Your task to perform on an android device: Search for Mexican restaurants on Maps Image 0: 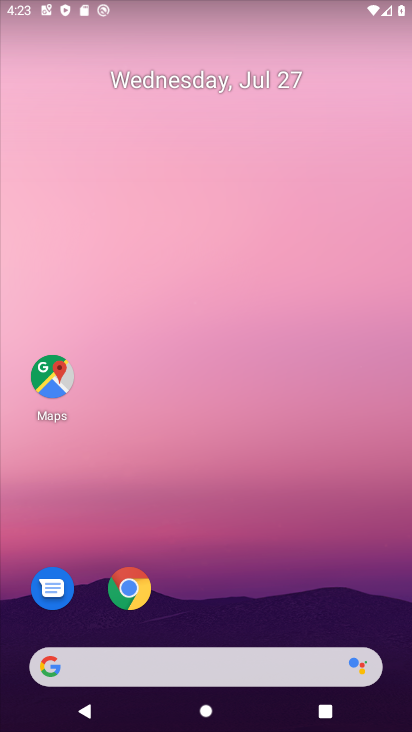
Step 0: drag from (237, 725) to (204, 294)
Your task to perform on an android device: Search for Mexican restaurants on Maps Image 1: 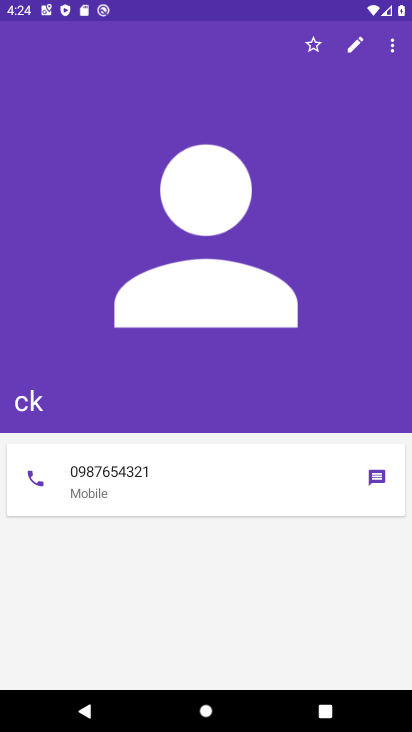
Step 1: press home button
Your task to perform on an android device: Search for Mexican restaurants on Maps Image 2: 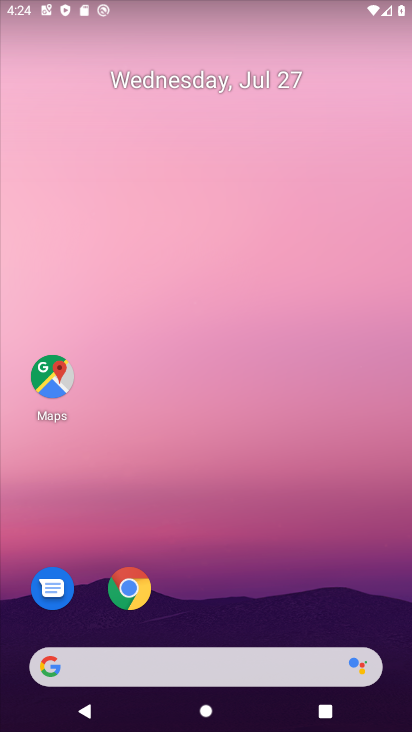
Step 2: drag from (223, 720) to (228, 142)
Your task to perform on an android device: Search for Mexican restaurants on Maps Image 3: 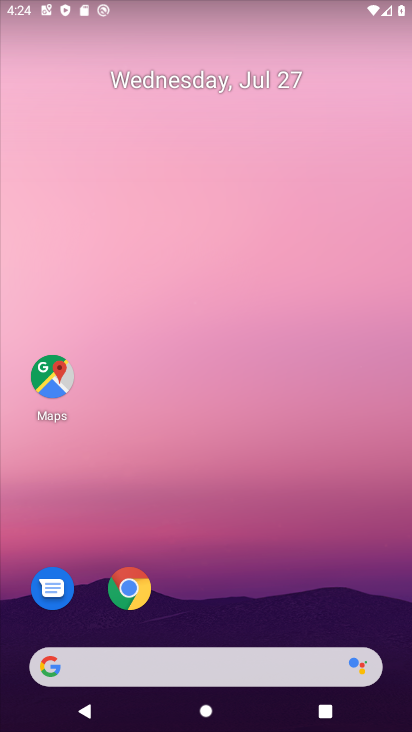
Step 3: drag from (227, 725) to (217, 72)
Your task to perform on an android device: Search for Mexican restaurants on Maps Image 4: 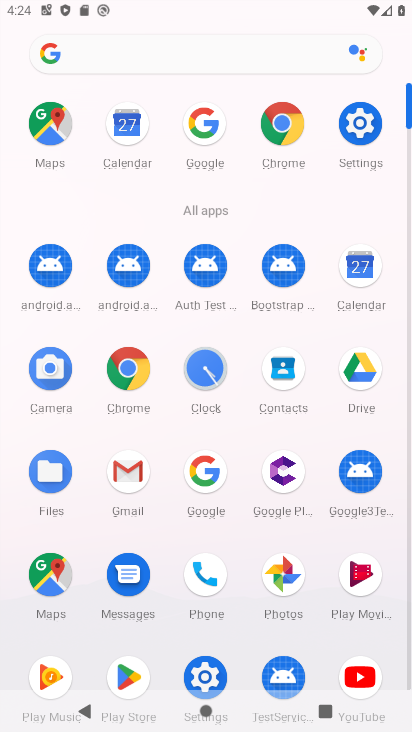
Step 4: click (49, 579)
Your task to perform on an android device: Search for Mexican restaurants on Maps Image 5: 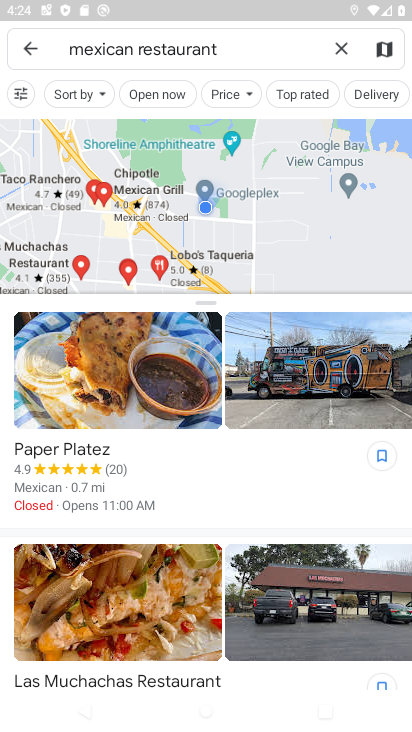
Step 5: task complete